Your task to perform on an android device: Go to battery settings Image 0: 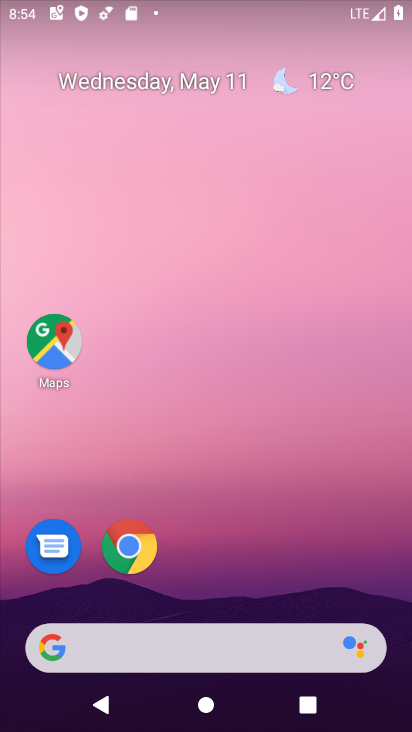
Step 0: drag from (393, 637) to (306, 60)
Your task to perform on an android device: Go to battery settings Image 1: 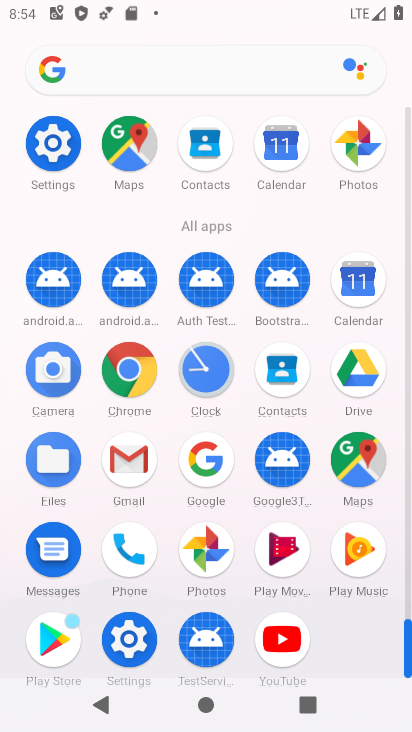
Step 1: click (130, 636)
Your task to perform on an android device: Go to battery settings Image 2: 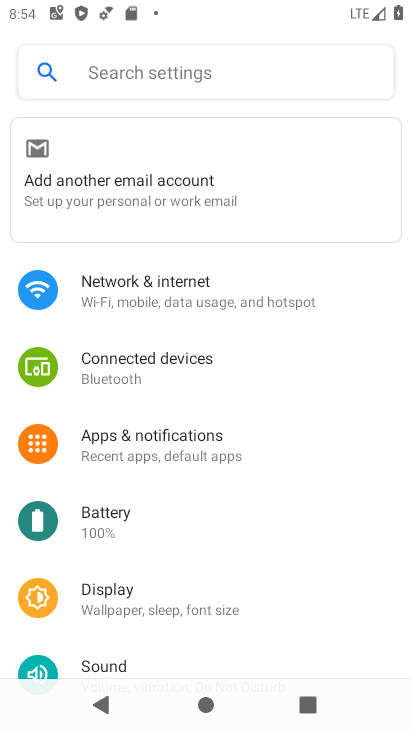
Step 2: click (100, 510)
Your task to perform on an android device: Go to battery settings Image 3: 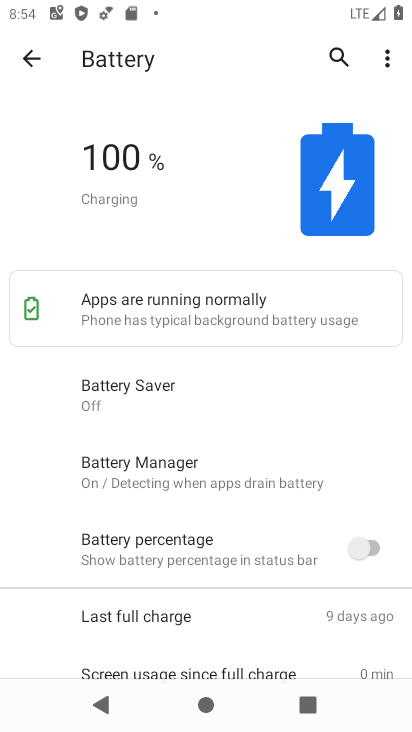
Step 3: task complete